Your task to perform on an android device: star an email in the gmail app Image 0: 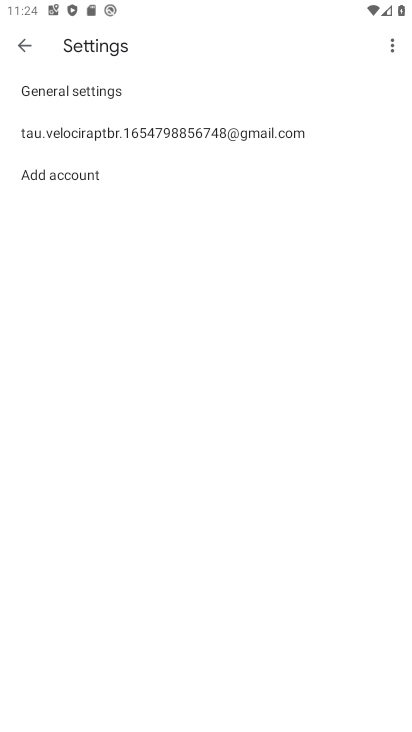
Step 0: press home button
Your task to perform on an android device: star an email in the gmail app Image 1: 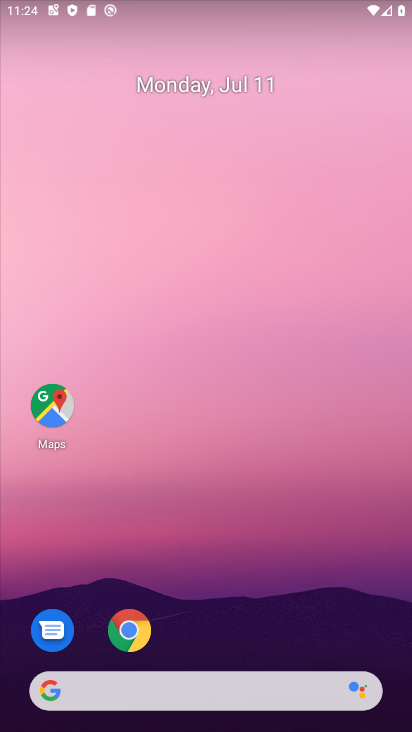
Step 1: drag from (284, 632) to (303, 156)
Your task to perform on an android device: star an email in the gmail app Image 2: 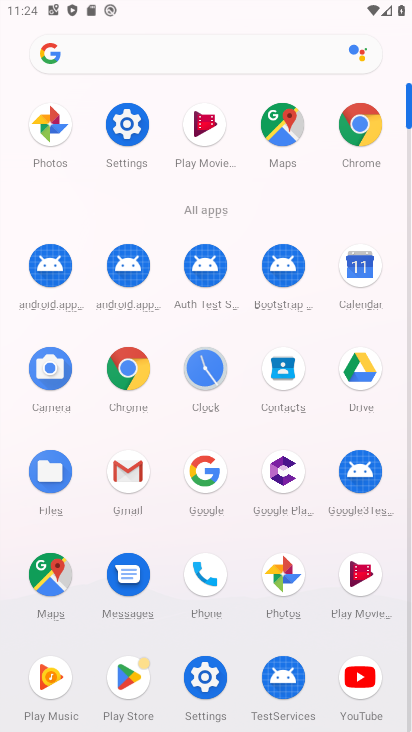
Step 2: click (128, 455)
Your task to perform on an android device: star an email in the gmail app Image 3: 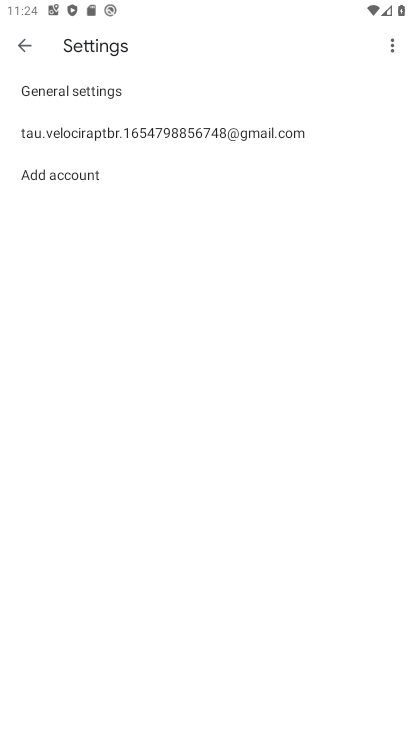
Step 3: click (33, 40)
Your task to perform on an android device: star an email in the gmail app Image 4: 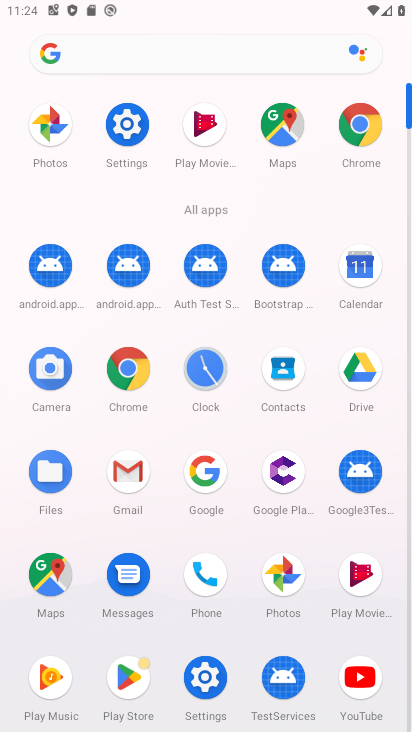
Step 4: click (137, 467)
Your task to perform on an android device: star an email in the gmail app Image 5: 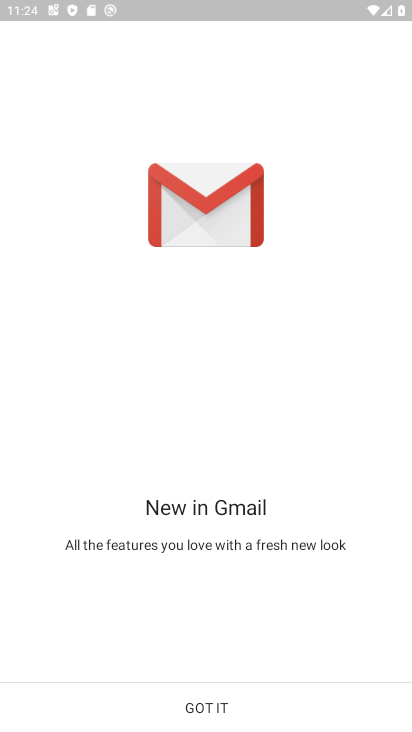
Step 5: click (187, 689)
Your task to perform on an android device: star an email in the gmail app Image 6: 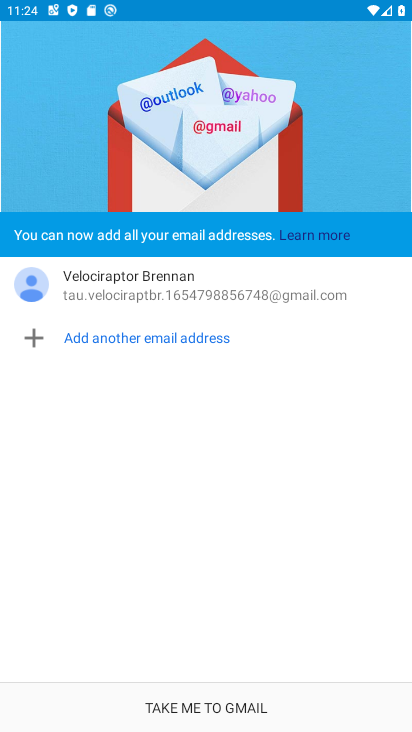
Step 6: click (228, 709)
Your task to perform on an android device: star an email in the gmail app Image 7: 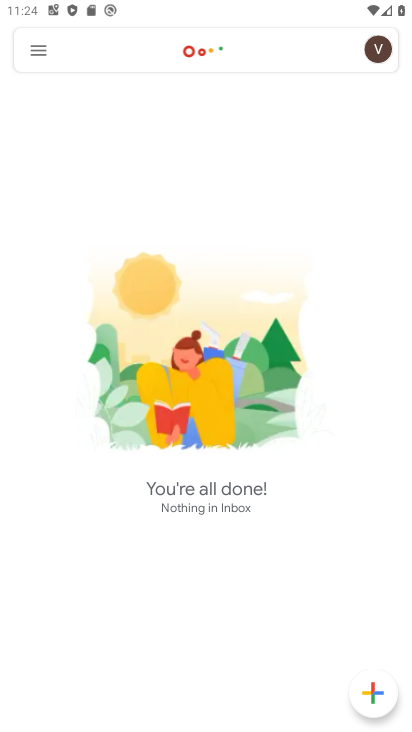
Step 7: click (39, 48)
Your task to perform on an android device: star an email in the gmail app Image 8: 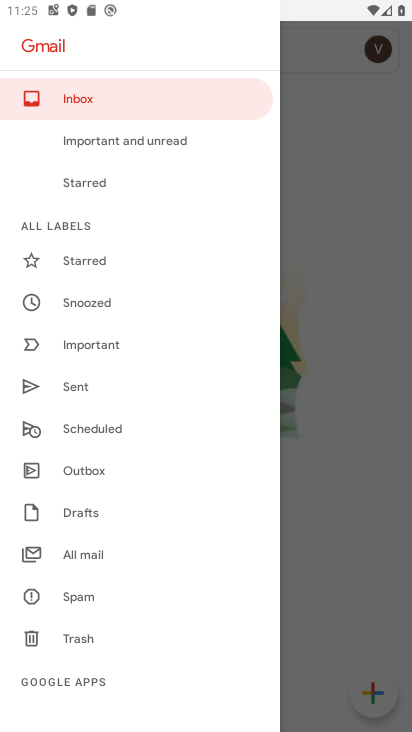
Step 8: click (97, 562)
Your task to perform on an android device: star an email in the gmail app Image 9: 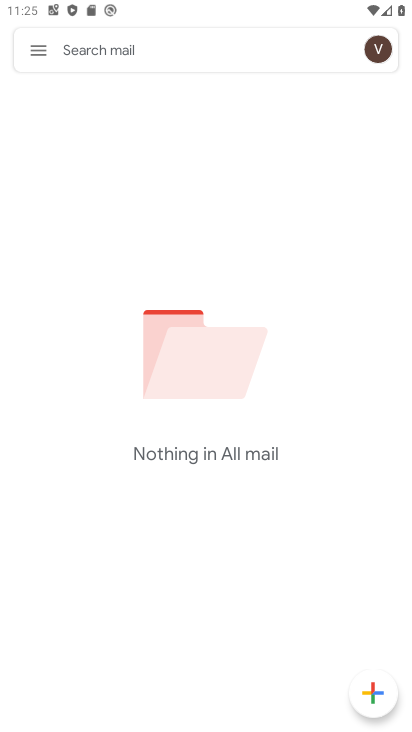
Step 9: task complete